Your task to perform on an android device: Is it going to rain this weekend? Image 0: 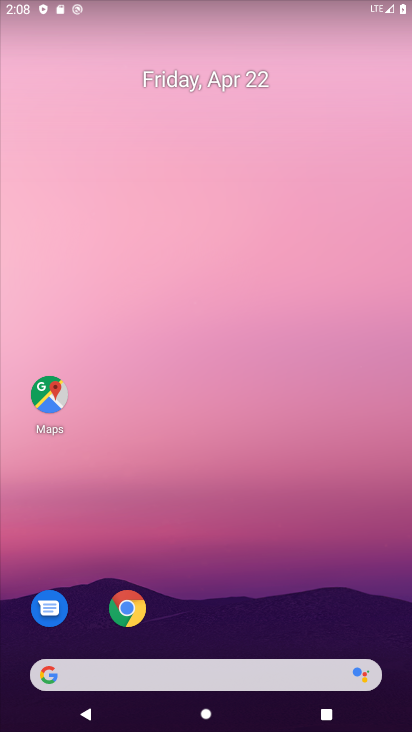
Step 0: drag from (265, 681) to (269, 258)
Your task to perform on an android device: Is it going to rain this weekend? Image 1: 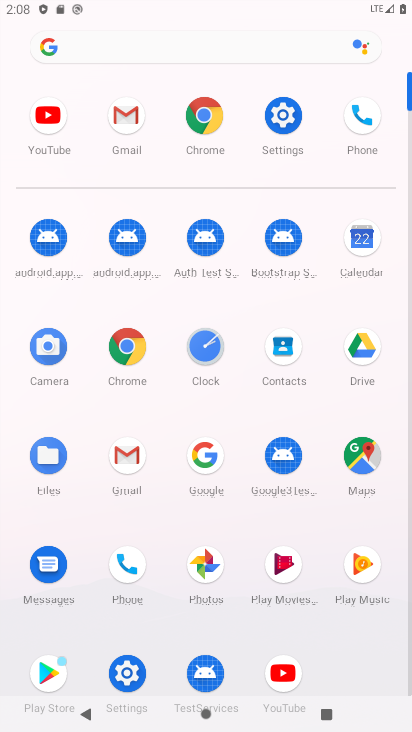
Step 1: click (282, 351)
Your task to perform on an android device: Is it going to rain this weekend? Image 2: 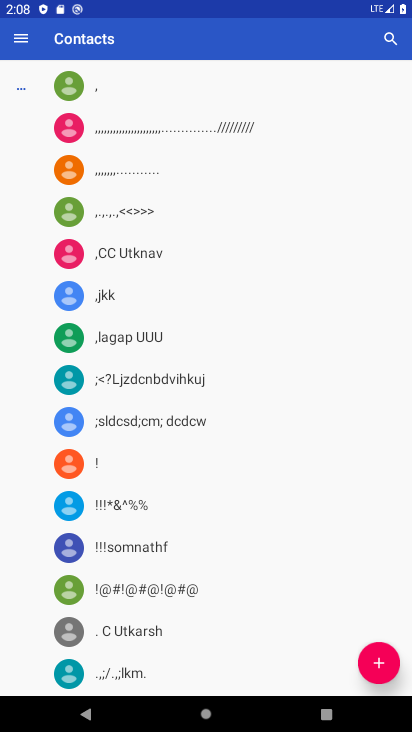
Step 2: press home button
Your task to perform on an android device: Is it going to rain this weekend? Image 3: 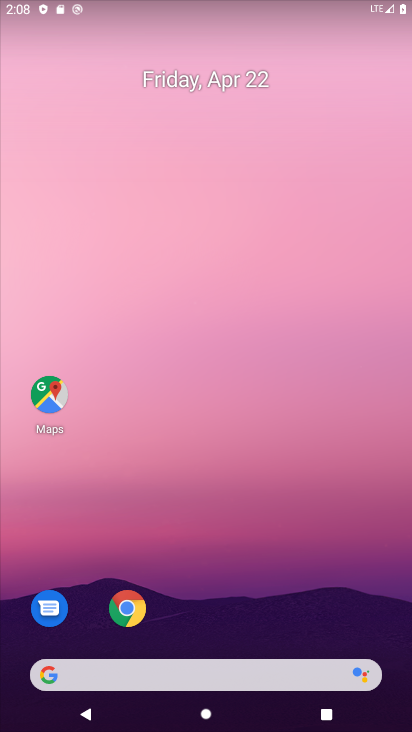
Step 3: drag from (235, 675) to (159, 173)
Your task to perform on an android device: Is it going to rain this weekend? Image 4: 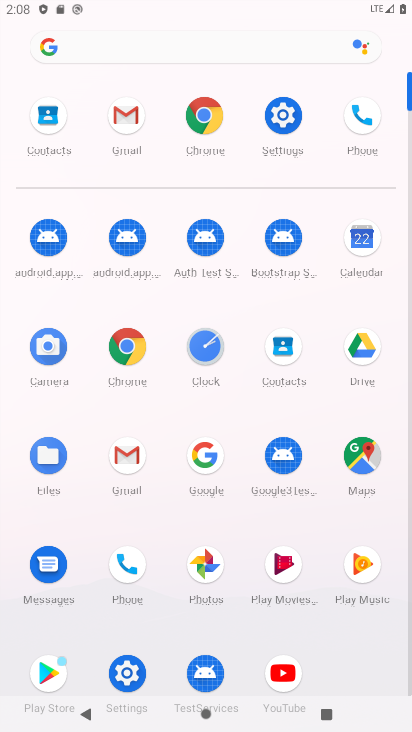
Step 4: click (102, 48)
Your task to perform on an android device: Is it going to rain this weekend? Image 5: 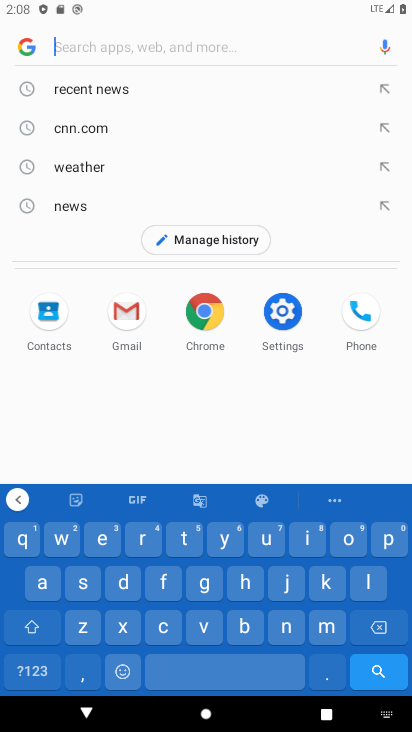
Step 5: click (75, 163)
Your task to perform on an android device: Is it going to rain this weekend? Image 6: 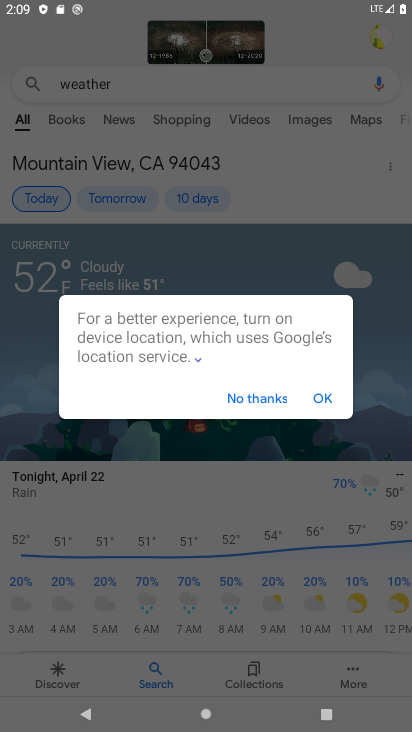
Step 6: click (239, 392)
Your task to perform on an android device: Is it going to rain this weekend? Image 7: 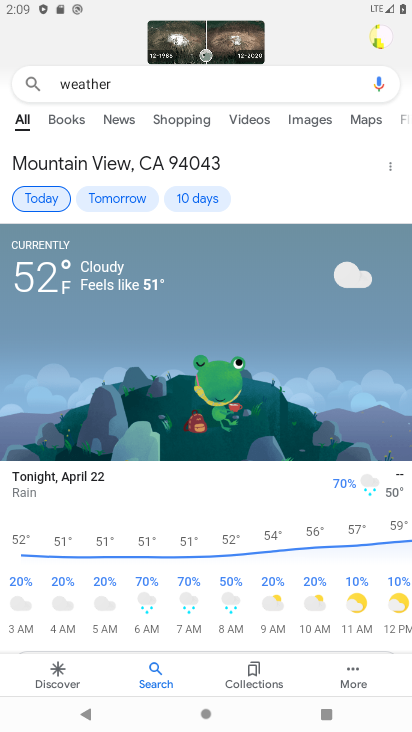
Step 7: click (194, 201)
Your task to perform on an android device: Is it going to rain this weekend? Image 8: 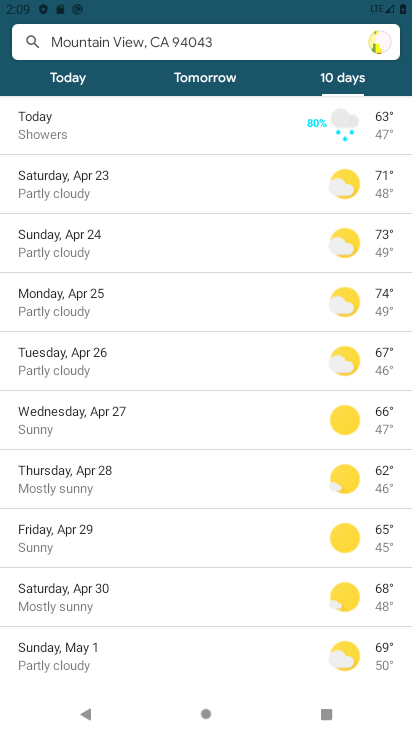
Step 8: task complete